Your task to perform on an android device: turn on location history Image 0: 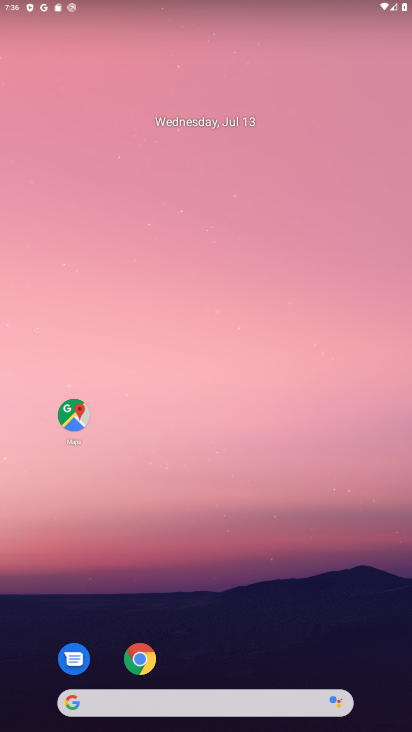
Step 0: drag from (268, 661) to (276, 216)
Your task to perform on an android device: turn on location history Image 1: 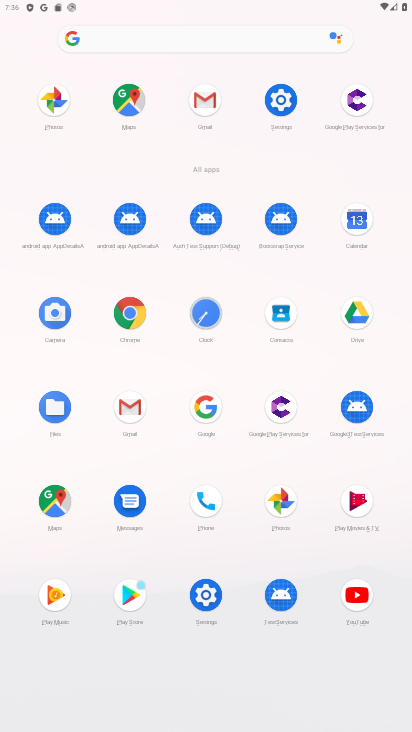
Step 1: click (303, 105)
Your task to perform on an android device: turn on location history Image 2: 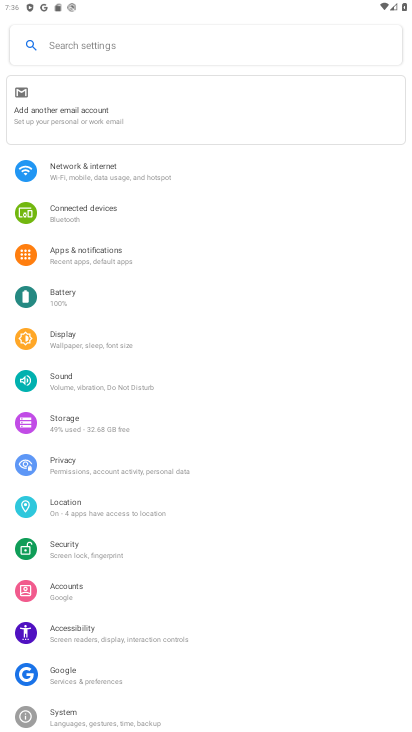
Step 2: click (59, 501)
Your task to perform on an android device: turn on location history Image 3: 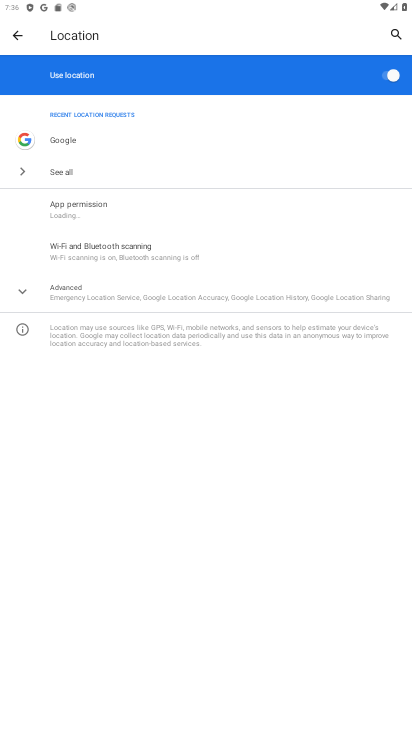
Step 3: click (85, 176)
Your task to perform on an android device: turn on location history Image 4: 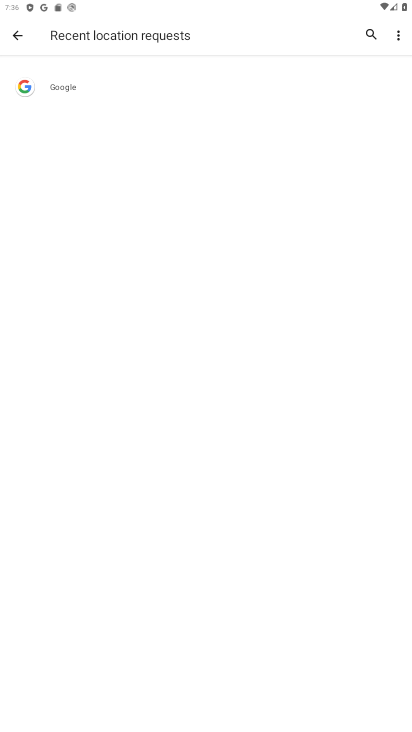
Step 4: click (25, 44)
Your task to perform on an android device: turn on location history Image 5: 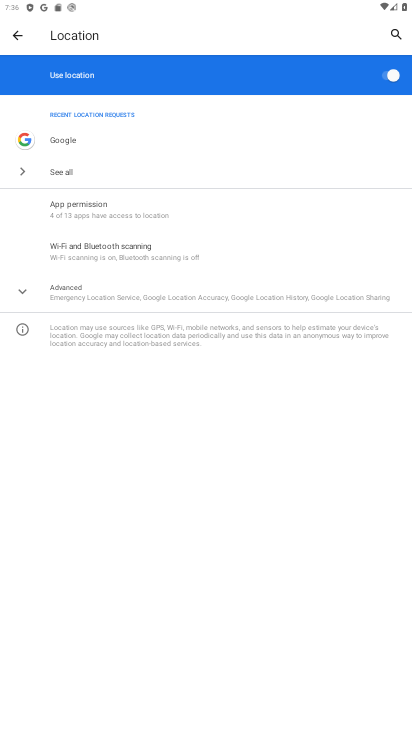
Step 5: click (37, 291)
Your task to perform on an android device: turn on location history Image 6: 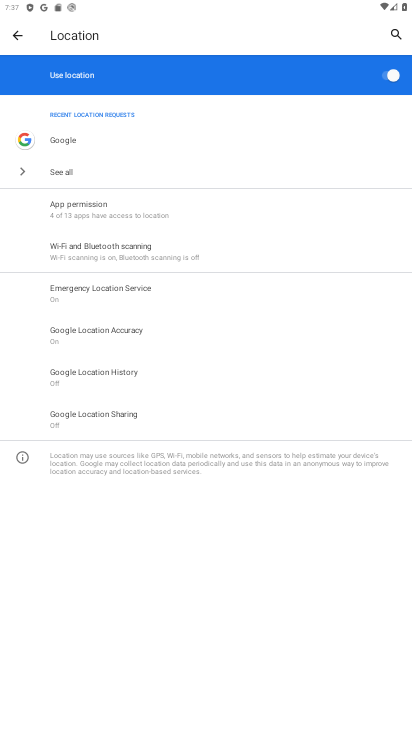
Step 6: click (112, 385)
Your task to perform on an android device: turn on location history Image 7: 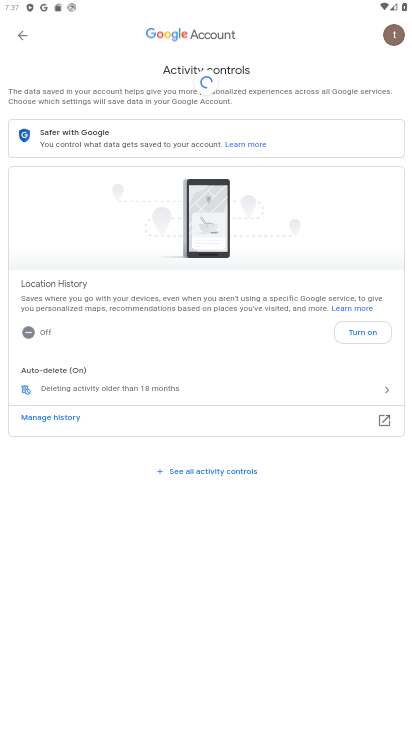
Step 7: click (364, 333)
Your task to perform on an android device: turn on location history Image 8: 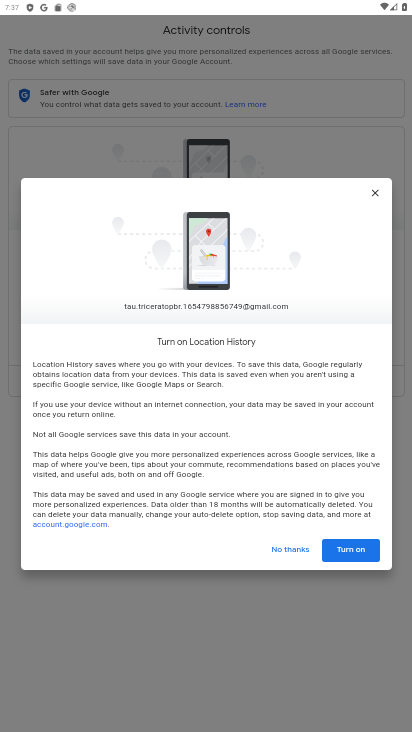
Step 8: click (358, 553)
Your task to perform on an android device: turn on location history Image 9: 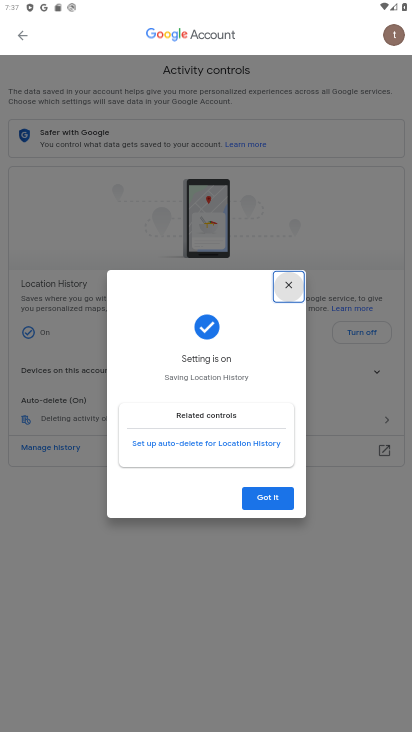
Step 9: click (279, 502)
Your task to perform on an android device: turn on location history Image 10: 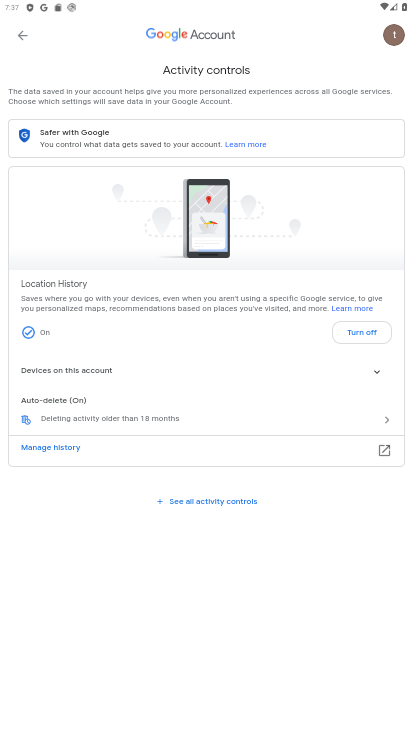
Step 10: task complete